Your task to perform on an android device: Set the phone to "Do not disturb". Image 0: 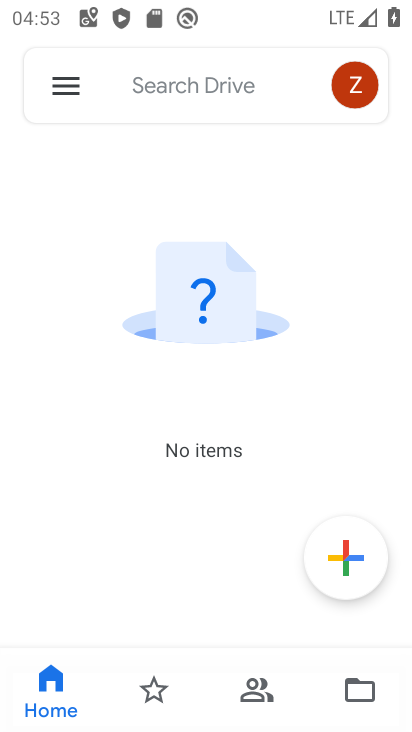
Step 0: press back button
Your task to perform on an android device: Set the phone to "Do not disturb". Image 1: 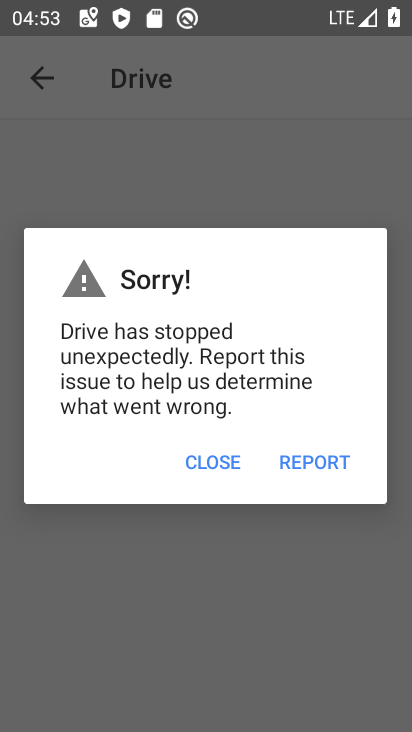
Step 1: click (202, 453)
Your task to perform on an android device: Set the phone to "Do not disturb". Image 2: 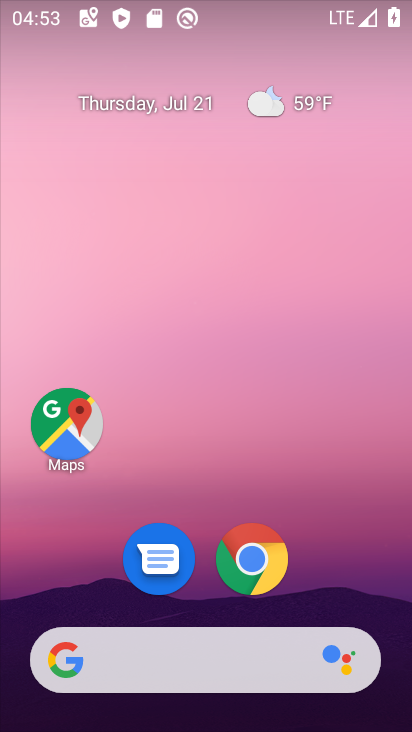
Step 2: drag from (193, 15) to (195, 647)
Your task to perform on an android device: Set the phone to "Do not disturb". Image 3: 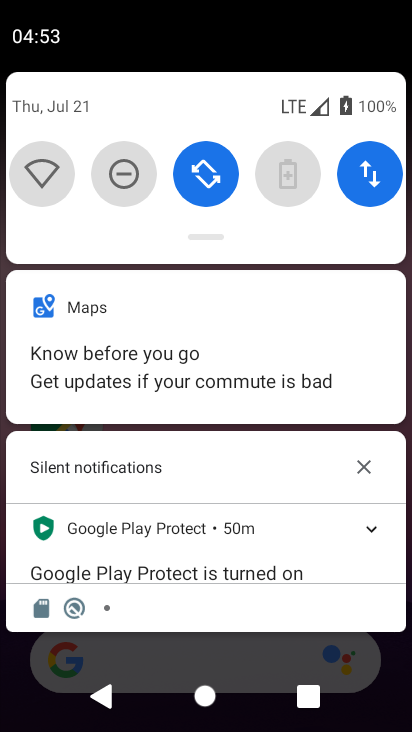
Step 3: click (120, 158)
Your task to perform on an android device: Set the phone to "Do not disturb". Image 4: 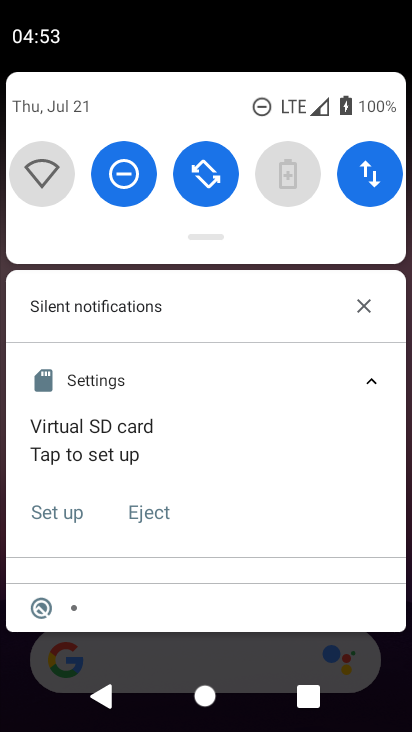
Step 4: task complete